Your task to perform on an android device: Open Amazon Image 0: 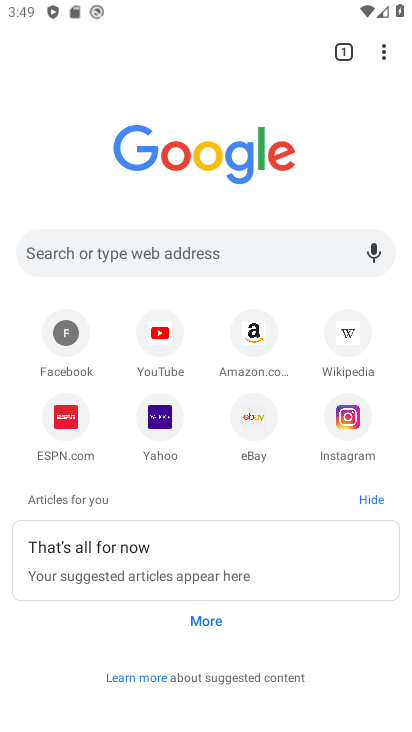
Step 0: click (261, 331)
Your task to perform on an android device: Open Amazon Image 1: 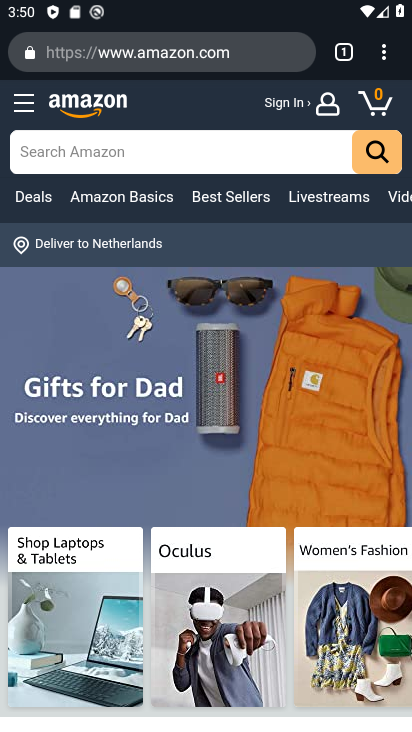
Step 1: task complete